Your task to perform on an android device: toggle data saver in the chrome app Image 0: 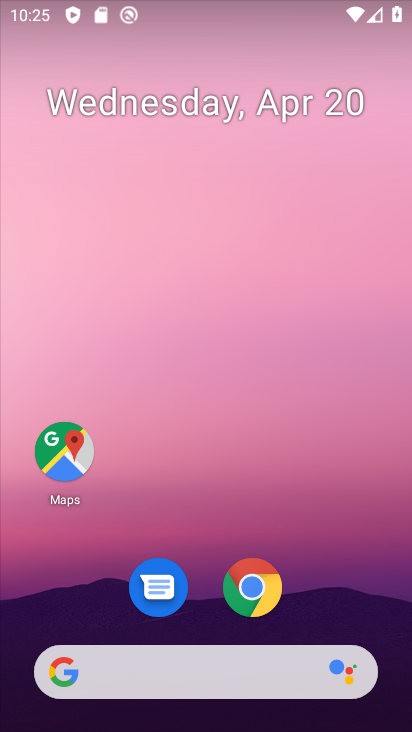
Step 0: drag from (329, 571) to (178, 31)
Your task to perform on an android device: toggle data saver in the chrome app Image 1: 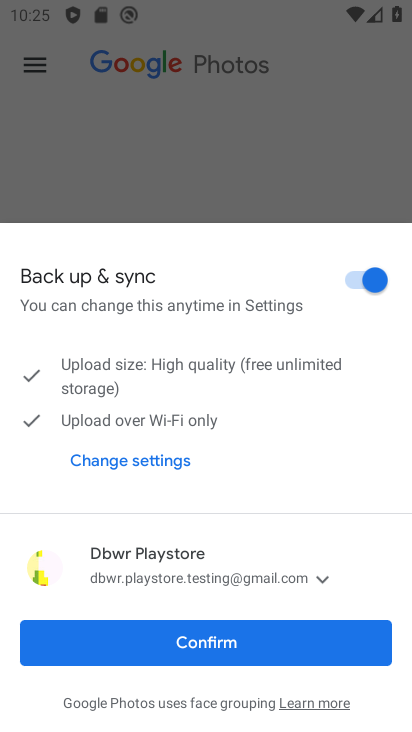
Step 1: click (188, 647)
Your task to perform on an android device: toggle data saver in the chrome app Image 2: 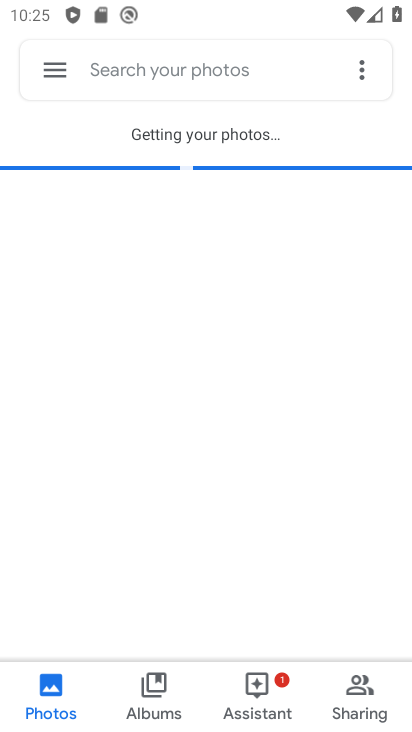
Step 2: press back button
Your task to perform on an android device: toggle data saver in the chrome app Image 3: 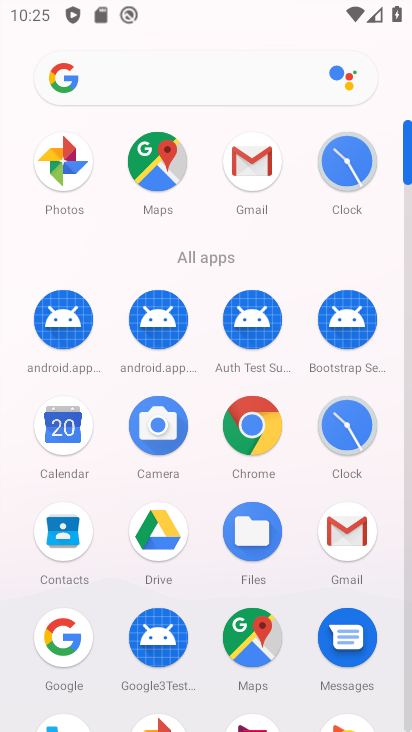
Step 3: click (251, 429)
Your task to perform on an android device: toggle data saver in the chrome app Image 4: 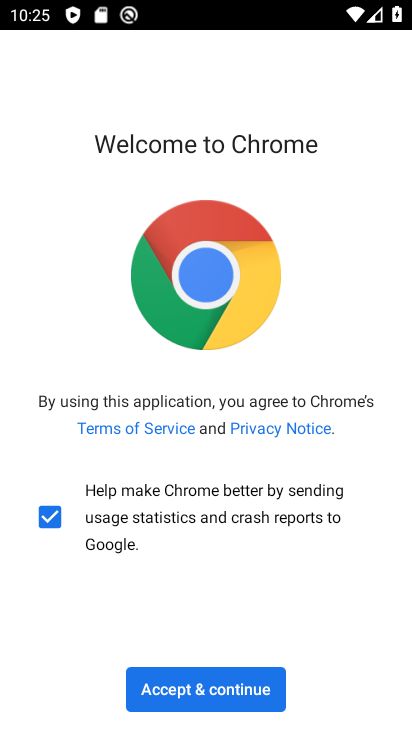
Step 4: click (172, 684)
Your task to perform on an android device: toggle data saver in the chrome app Image 5: 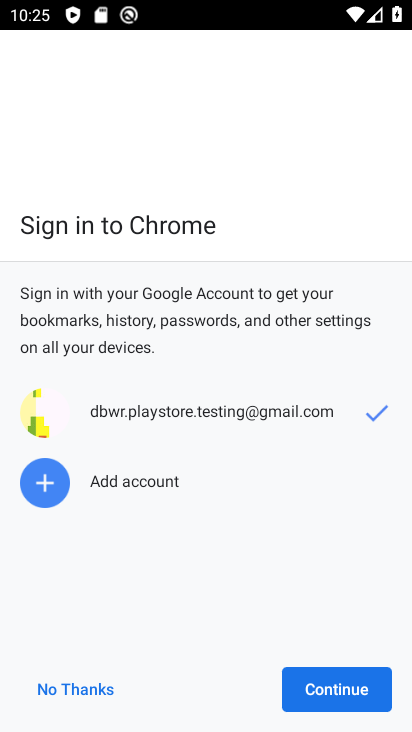
Step 5: click (332, 687)
Your task to perform on an android device: toggle data saver in the chrome app Image 6: 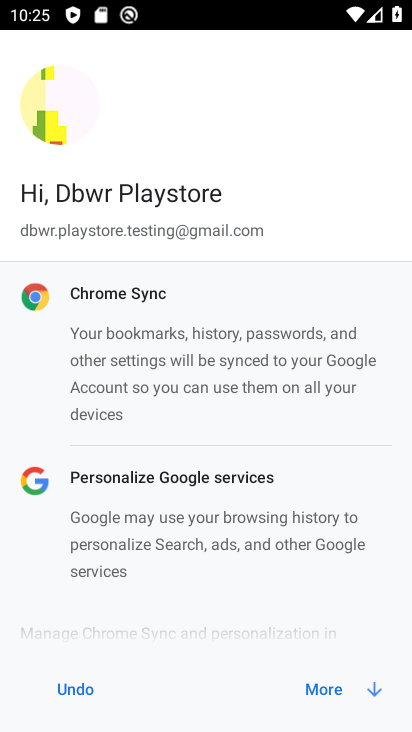
Step 6: click (316, 682)
Your task to perform on an android device: toggle data saver in the chrome app Image 7: 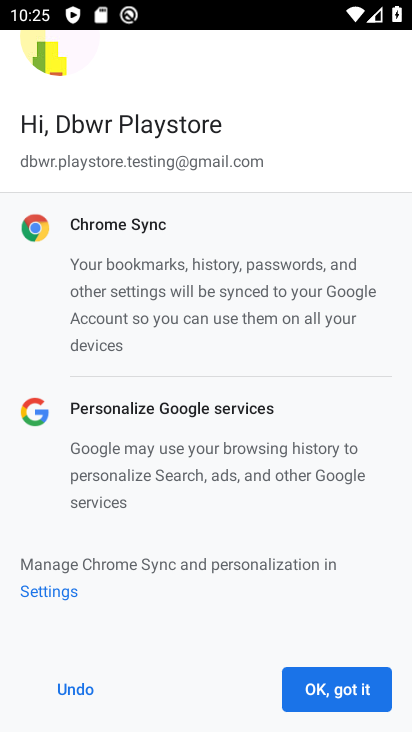
Step 7: click (316, 682)
Your task to perform on an android device: toggle data saver in the chrome app Image 8: 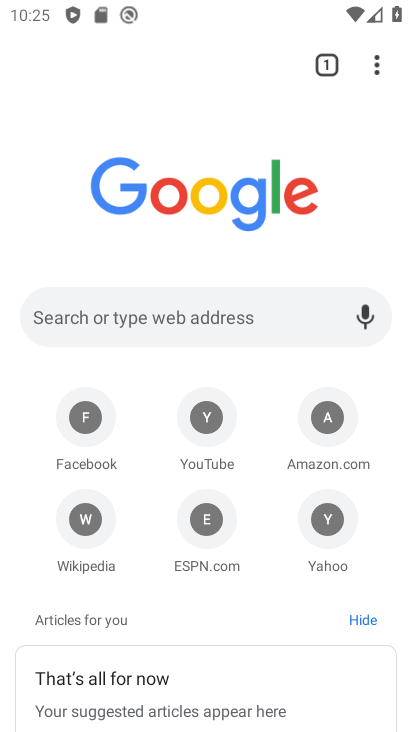
Step 8: drag from (380, 70) to (172, 543)
Your task to perform on an android device: toggle data saver in the chrome app Image 9: 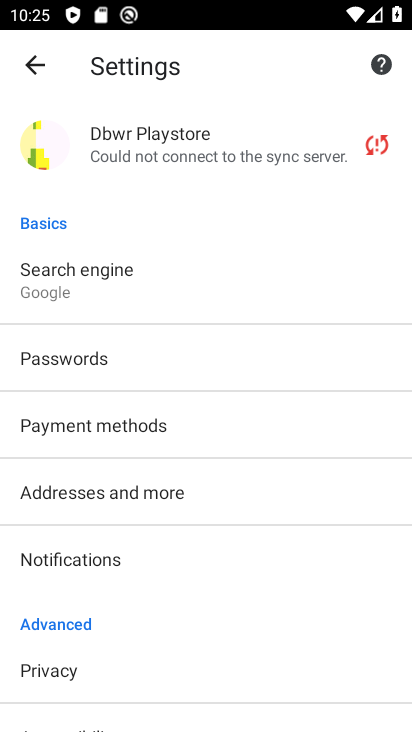
Step 9: drag from (204, 543) to (175, 196)
Your task to perform on an android device: toggle data saver in the chrome app Image 10: 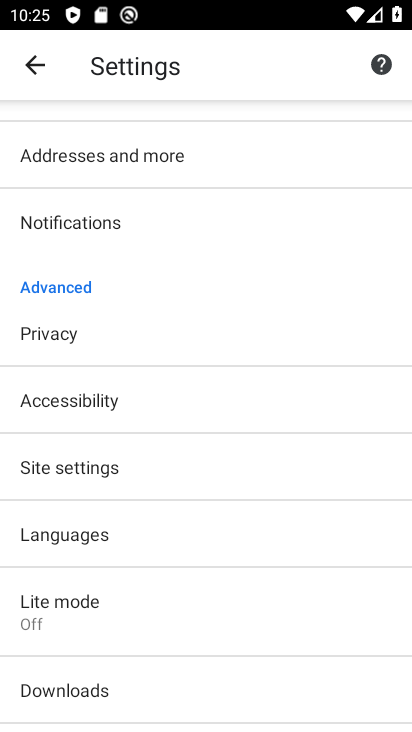
Step 10: click (93, 620)
Your task to perform on an android device: toggle data saver in the chrome app Image 11: 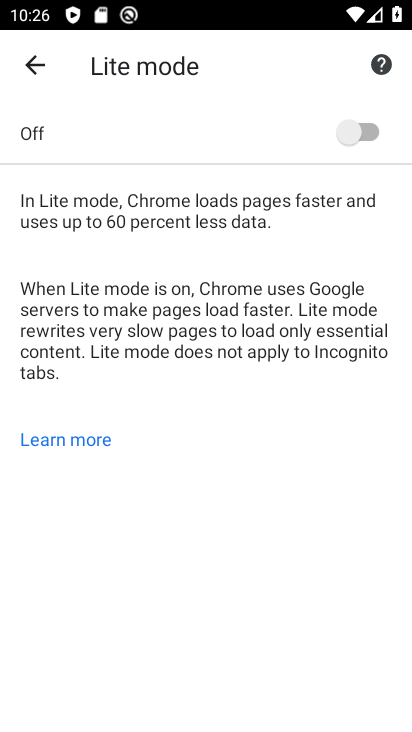
Step 11: click (353, 137)
Your task to perform on an android device: toggle data saver in the chrome app Image 12: 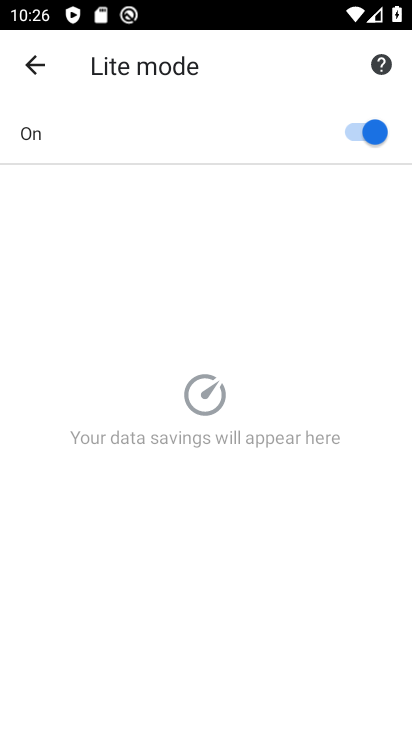
Step 12: task complete